Your task to perform on an android device: turn on improve location accuracy Image 0: 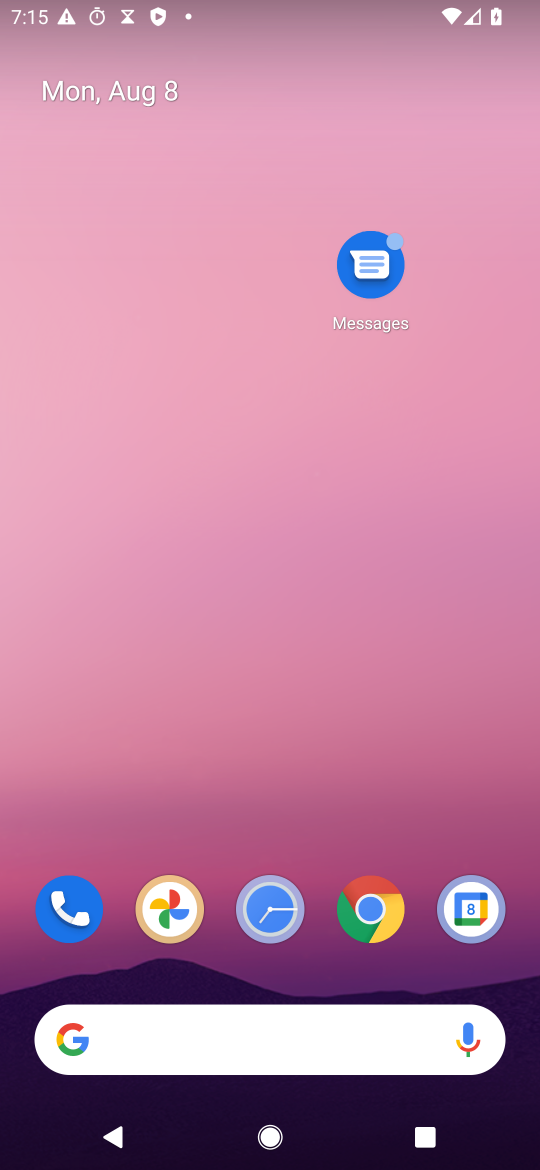
Step 0: drag from (275, 1010) to (539, 205)
Your task to perform on an android device: turn on improve location accuracy Image 1: 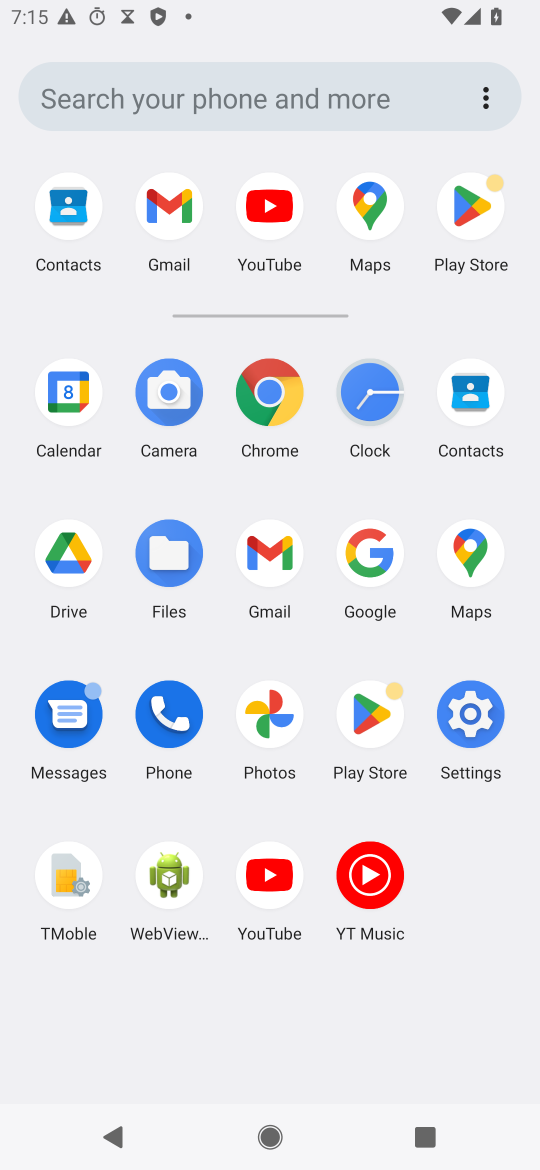
Step 1: click (465, 728)
Your task to perform on an android device: turn on improve location accuracy Image 2: 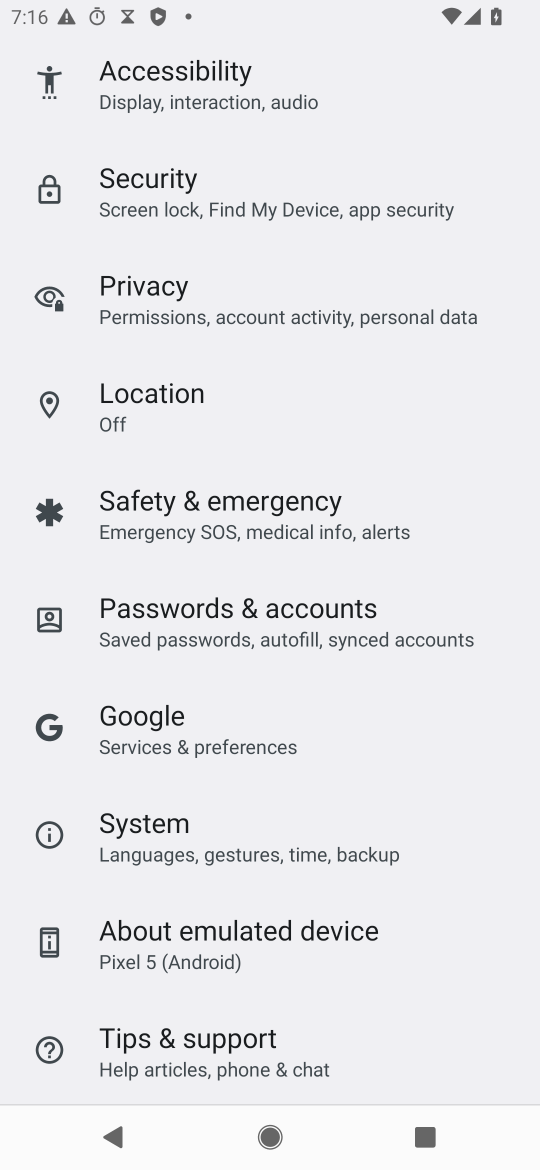
Step 2: click (181, 407)
Your task to perform on an android device: turn on improve location accuracy Image 3: 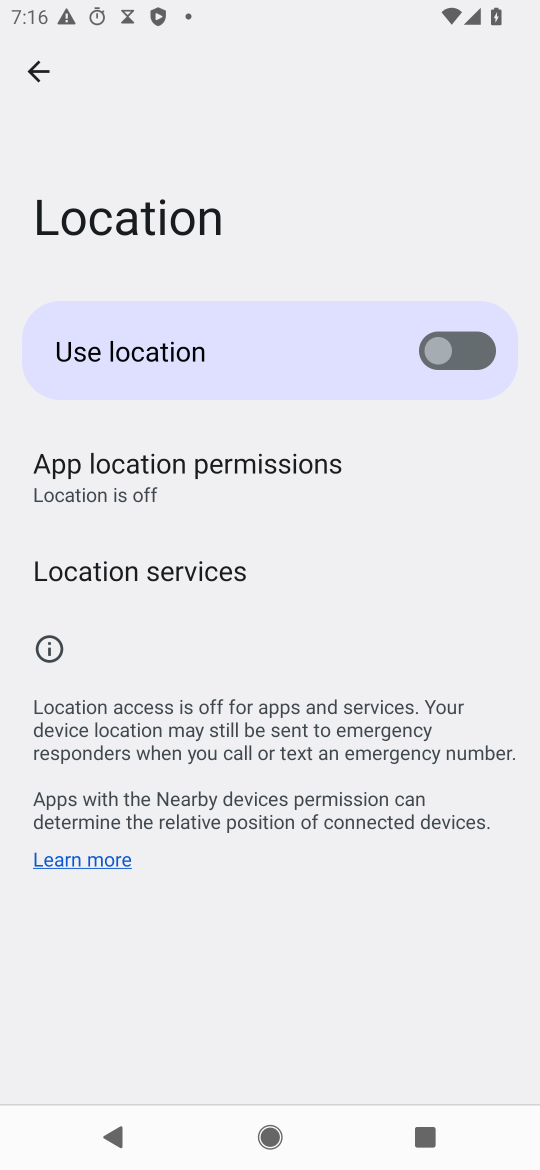
Step 3: click (201, 571)
Your task to perform on an android device: turn on improve location accuracy Image 4: 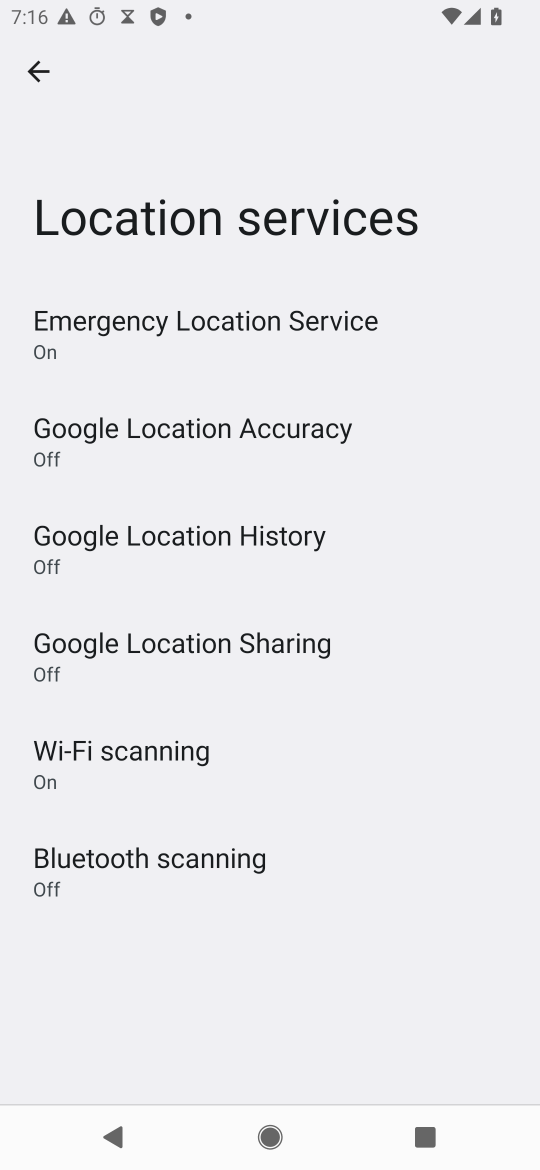
Step 4: click (247, 433)
Your task to perform on an android device: turn on improve location accuracy Image 5: 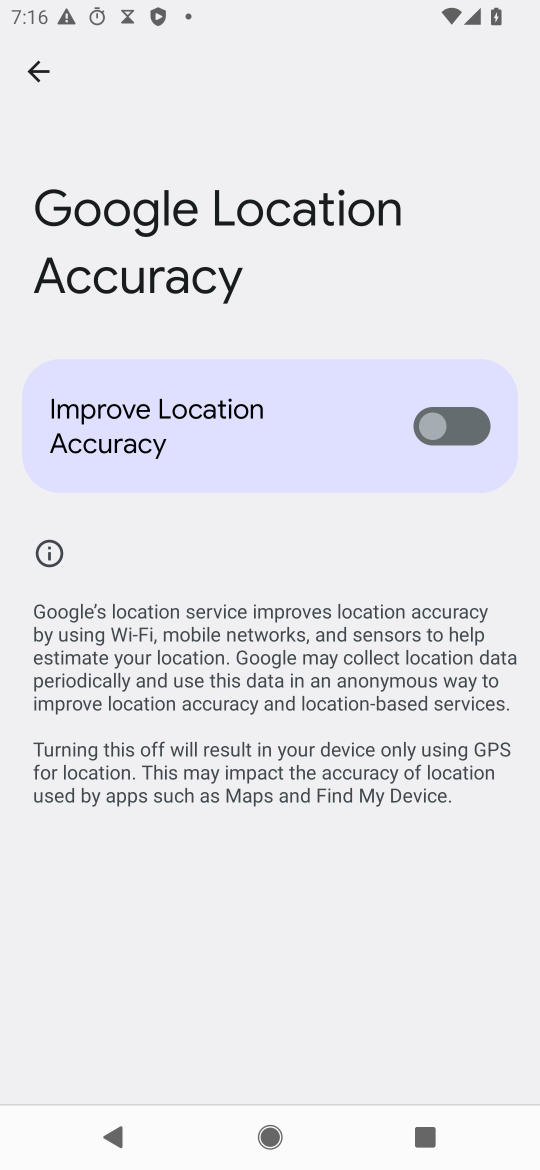
Step 5: click (458, 419)
Your task to perform on an android device: turn on improve location accuracy Image 6: 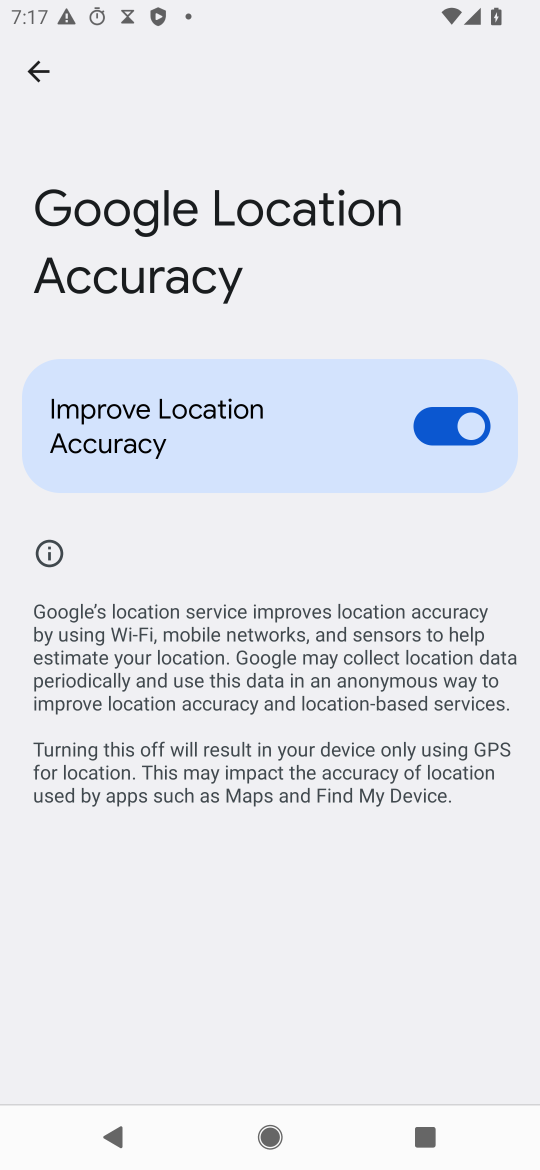
Step 6: task complete